Your task to perform on an android device: move a message to another label in the gmail app Image 0: 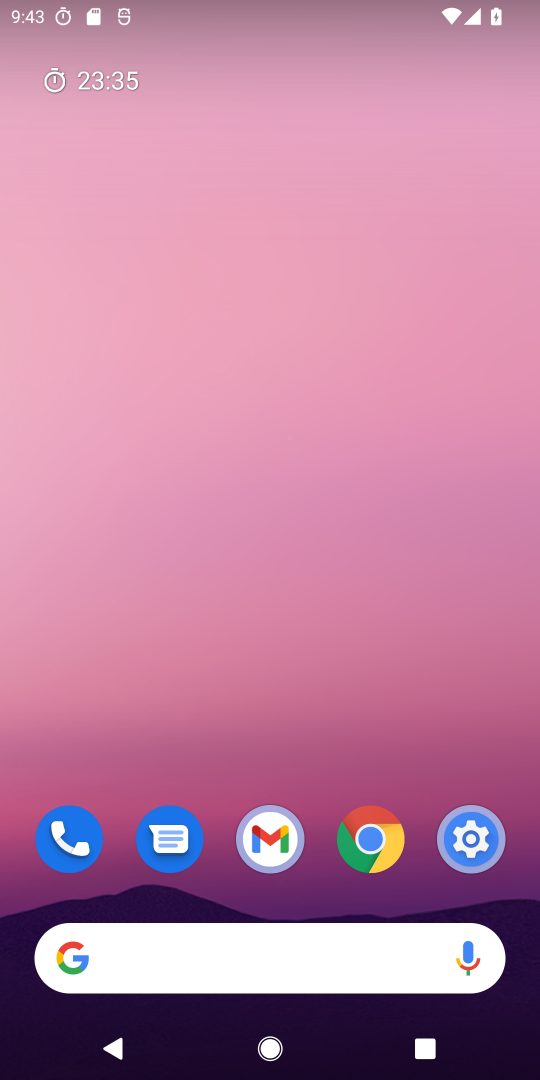
Step 0: press home button
Your task to perform on an android device: move a message to another label in the gmail app Image 1: 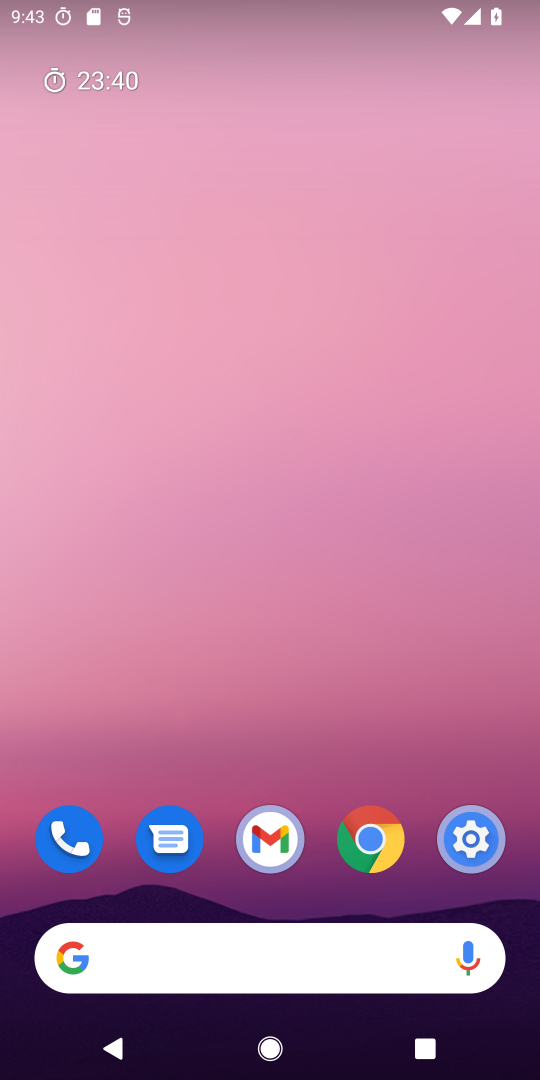
Step 1: press home button
Your task to perform on an android device: move a message to another label in the gmail app Image 2: 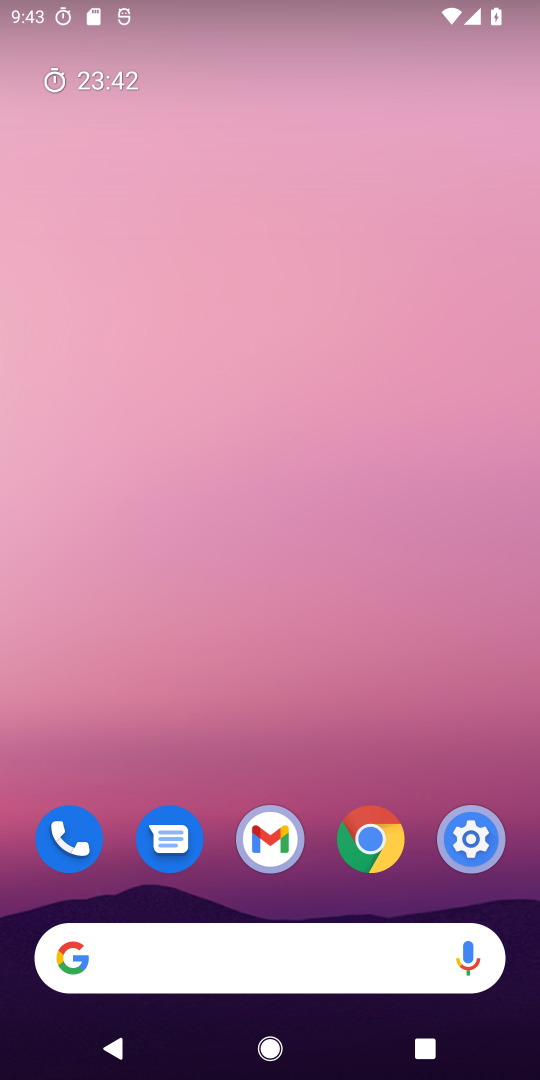
Step 2: click (280, 852)
Your task to perform on an android device: move a message to another label in the gmail app Image 3: 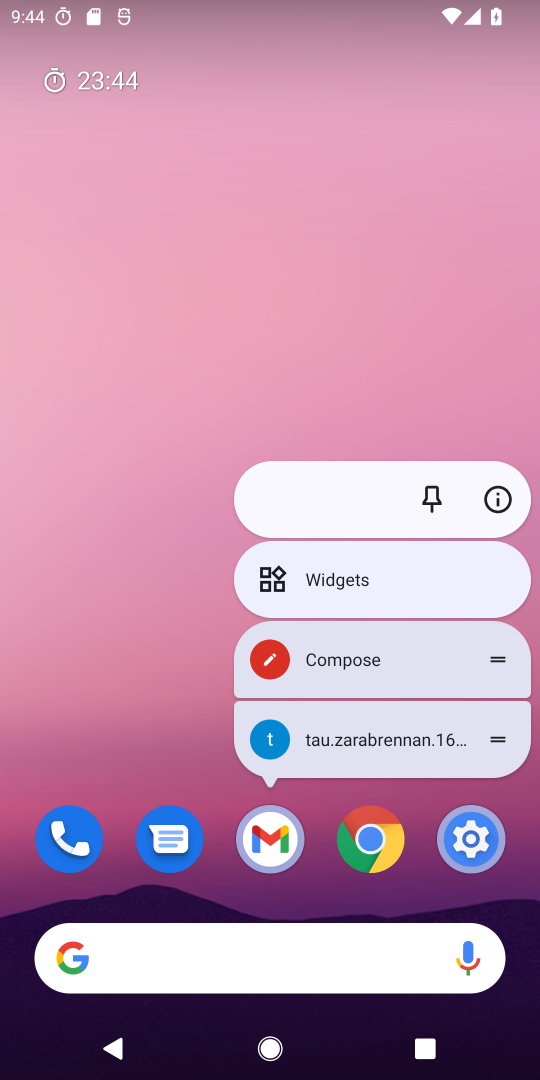
Step 3: click (273, 844)
Your task to perform on an android device: move a message to another label in the gmail app Image 4: 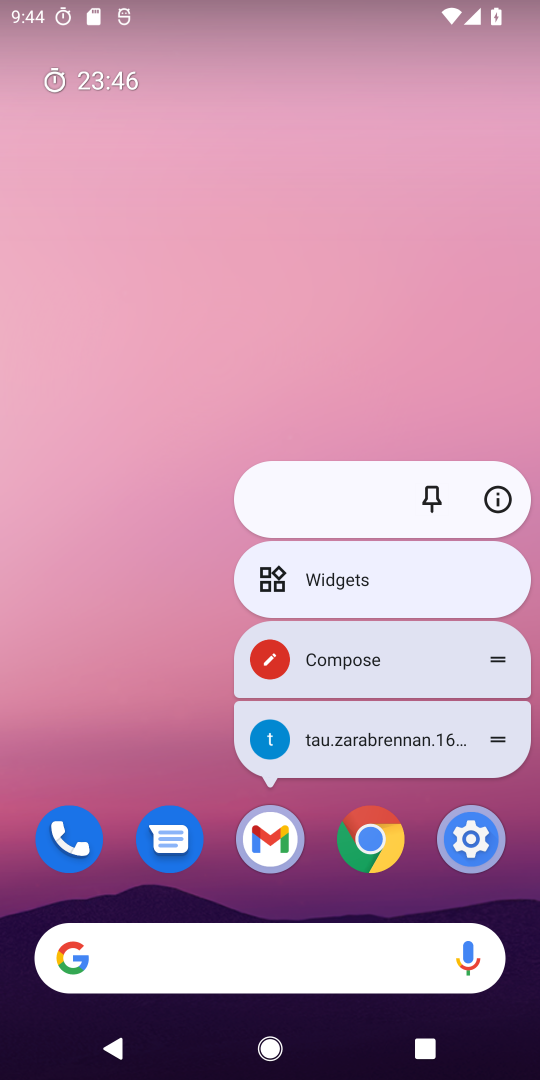
Step 4: drag from (167, 752) to (224, 157)
Your task to perform on an android device: move a message to another label in the gmail app Image 5: 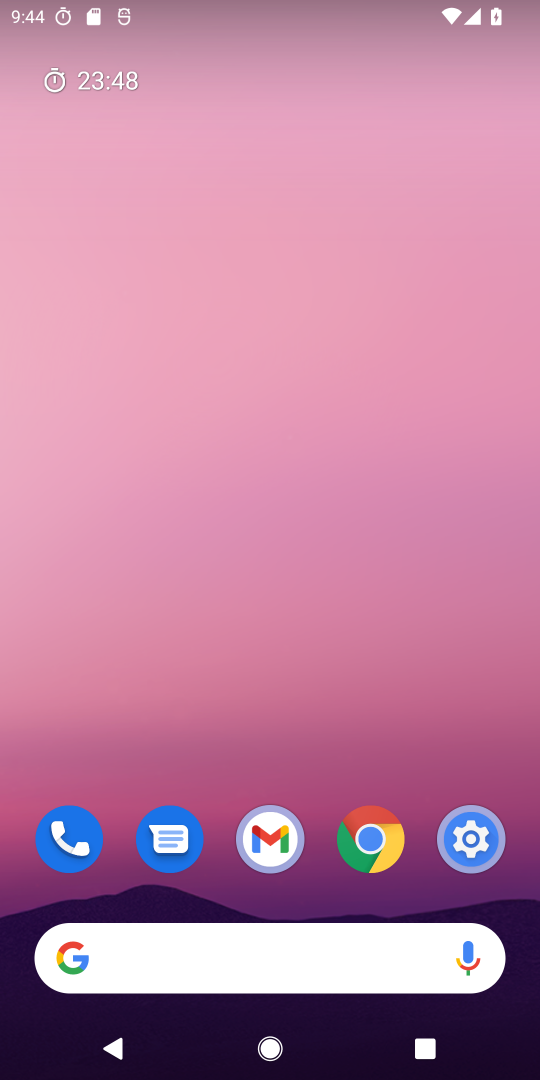
Step 5: drag from (331, 748) to (380, 3)
Your task to perform on an android device: move a message to another label in the gmail app Image 6: 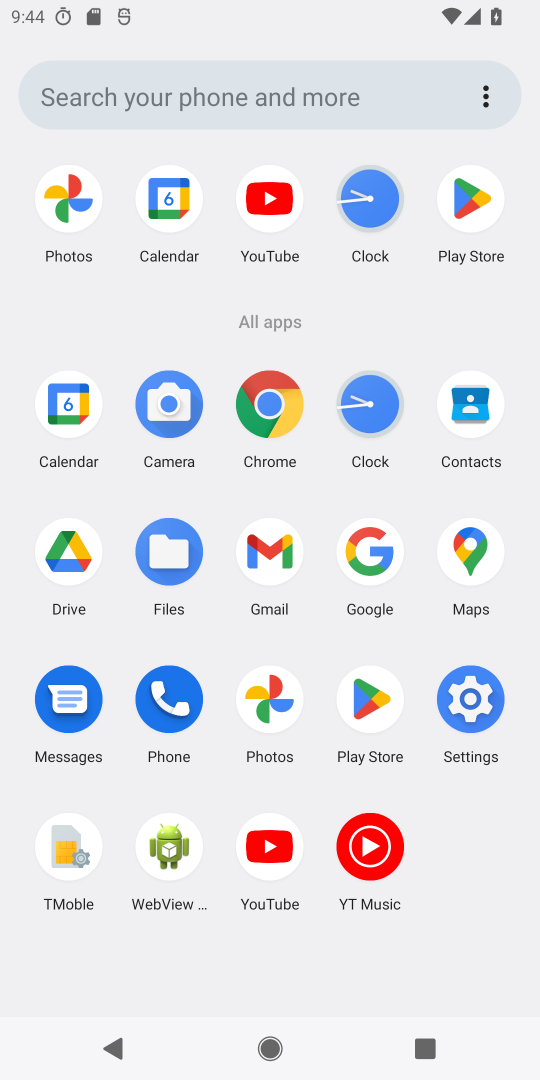
Step 6: click (273, 544)
Your task to perform on an android device: move a message to another label in the gmail app Image 7: 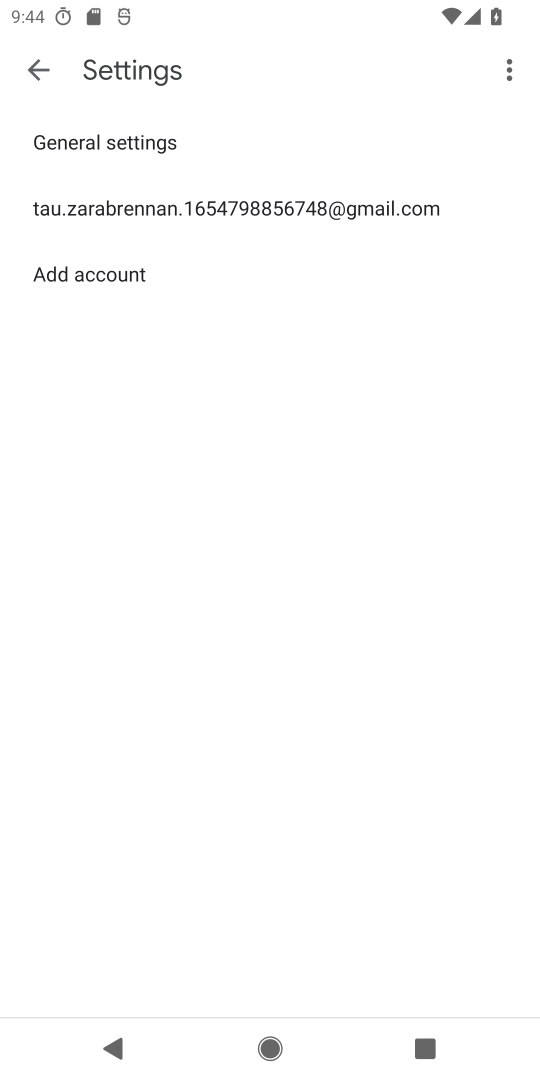
Step 7: click (48, 58)
Your task to perform on an android device: move a message to another label in the gmail app Image 8: 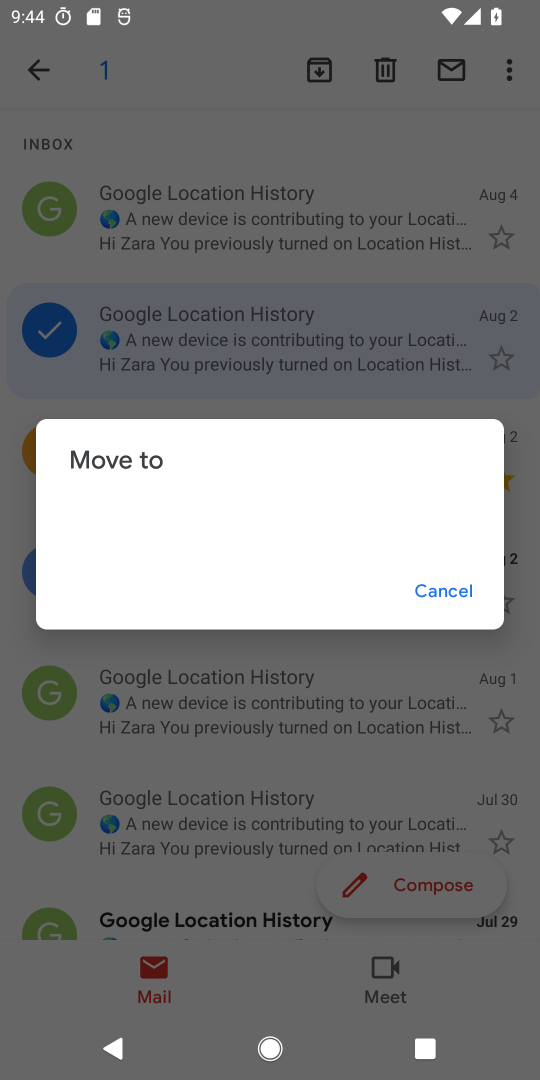
Step 8: click (452, 591)
Your task to perform on an android device: move a message to another label in the gmail app Image 9: 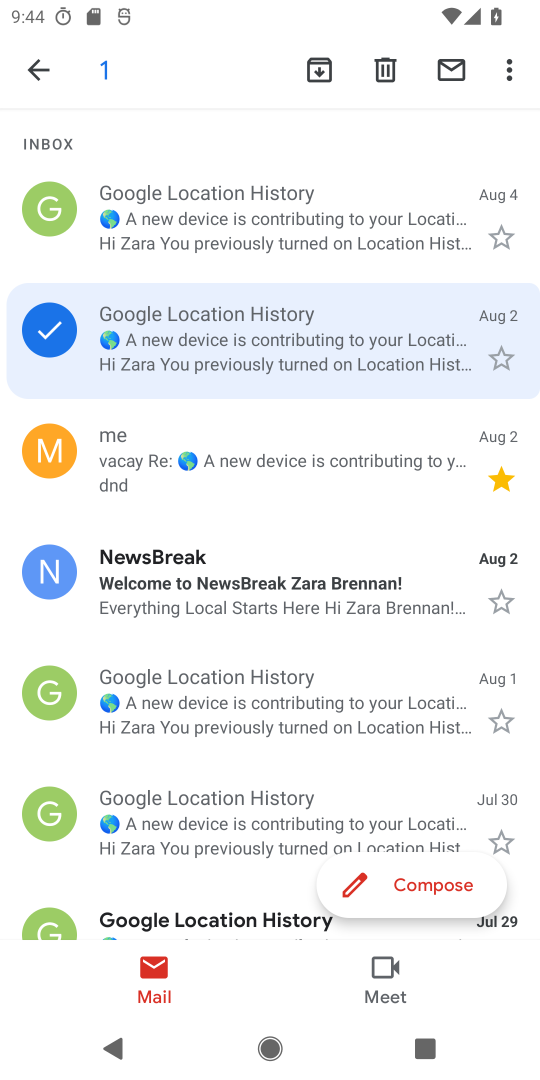
Step 9: click (517, 68)
Your task to perform on an android device: move a message to another label in the gmail app Image 10: 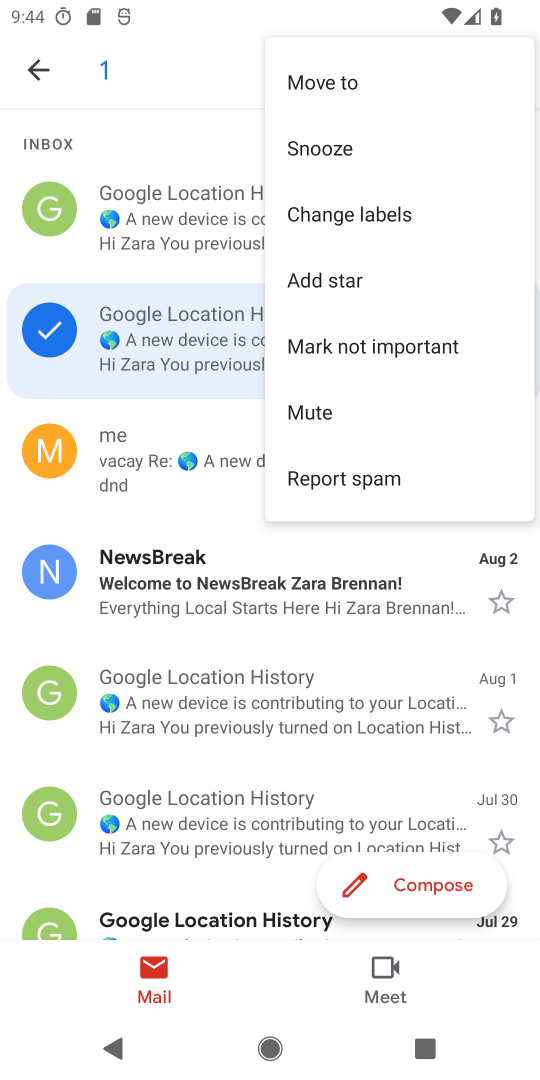
Step 10: click (393, 211)
Your task to perform on an android device: move a message to another label in the gmail app Image 11: 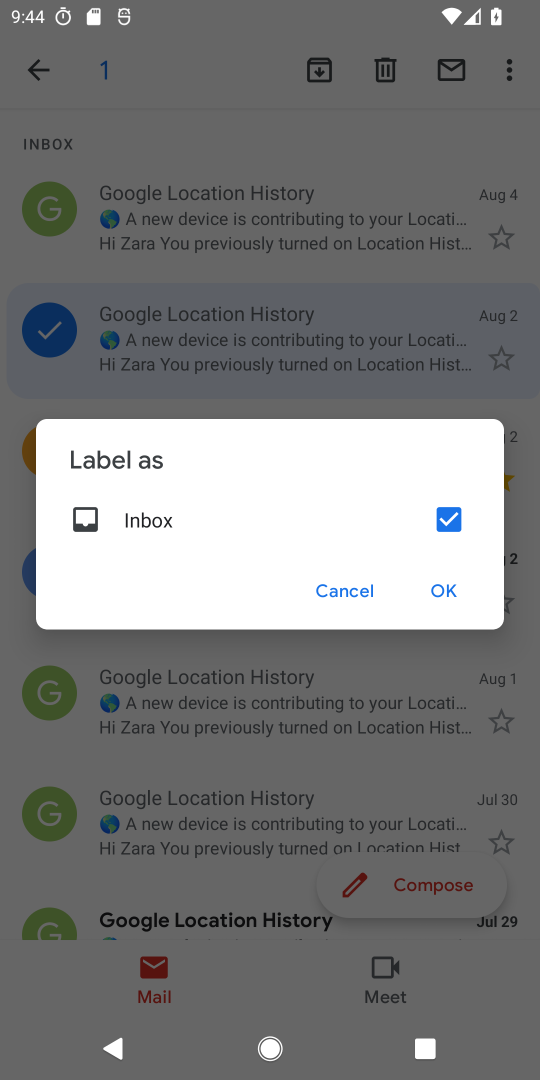
Step 11: click (449, 519)
Your task to perform on an android device: move a message to another label in the gmail app Image 12: 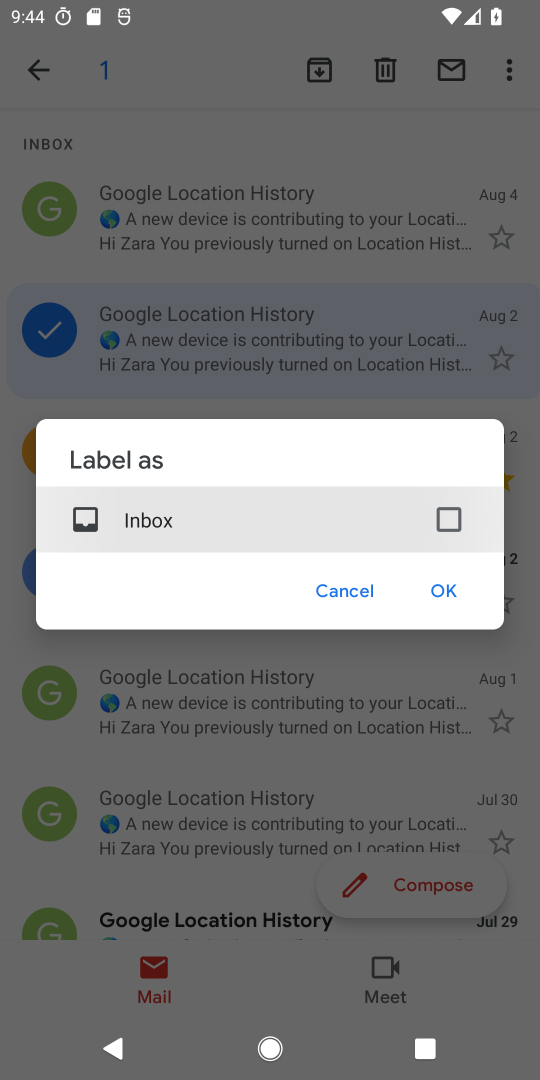
Step 12: click (451, 584)
Your task to perform on an android device: move a message to another label in the gmail app Image 13: 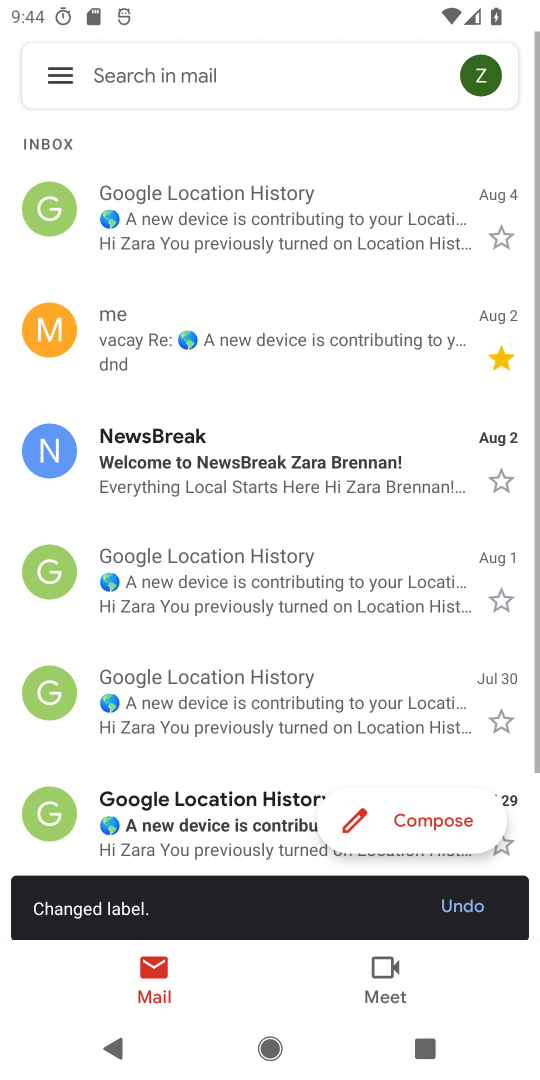
Step 13: task complete